Your task to perform on an android device: turn on the 24-hour format for clock Image 0: 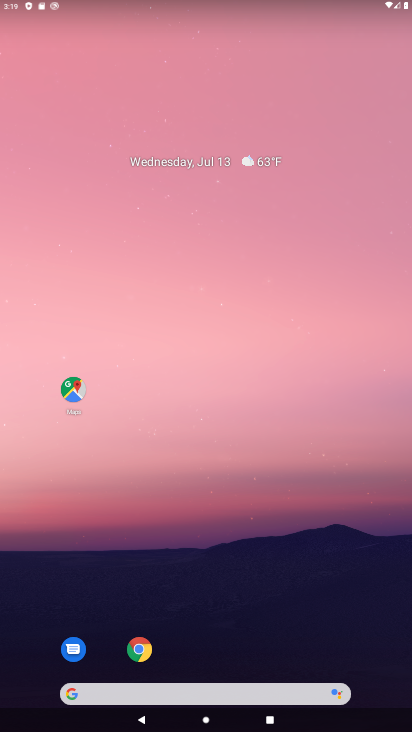
Step 0: click (268, 165)
Your task to perform on an android device: turn on the 24-hour format for clock Image 1: 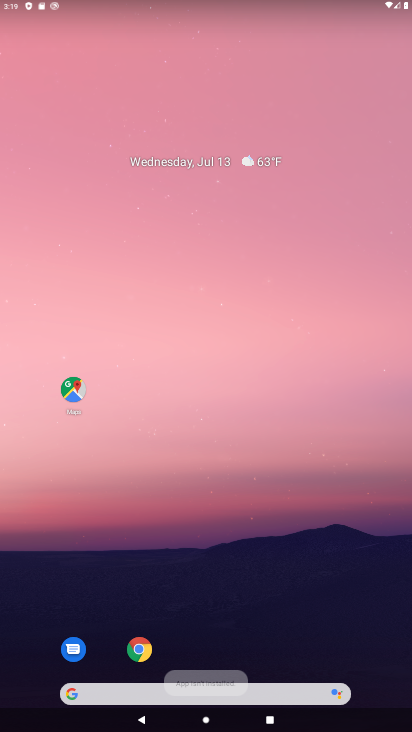
Step 1: drag from (327, 544) to (388, 0)
Your task to perform on an android device: turn on the 24-hour format for clock Image 2: 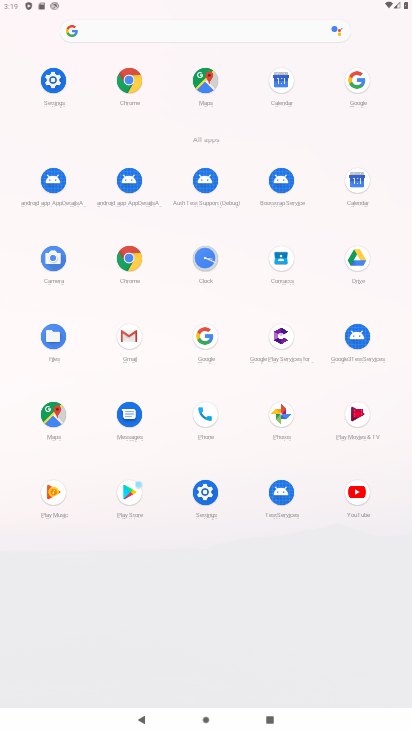
Step 2: click (210, 265)
Your task to perform on an android device: turn on the 24-hour format for clock Image 3: 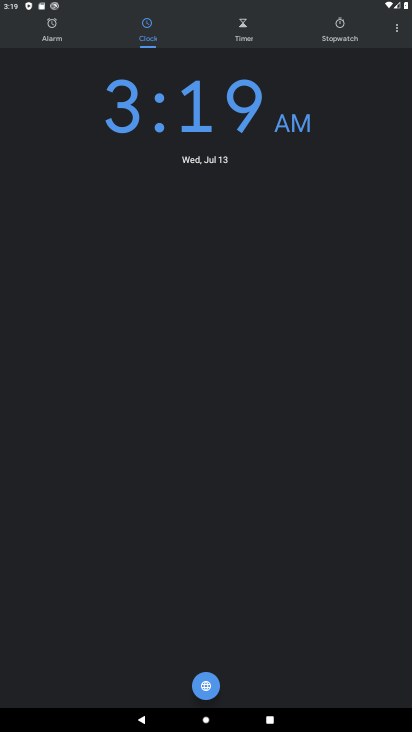
Step 3: click (392, 25)
Your task to perform on an android device: turn on the 24-hour format for clock Image 4: 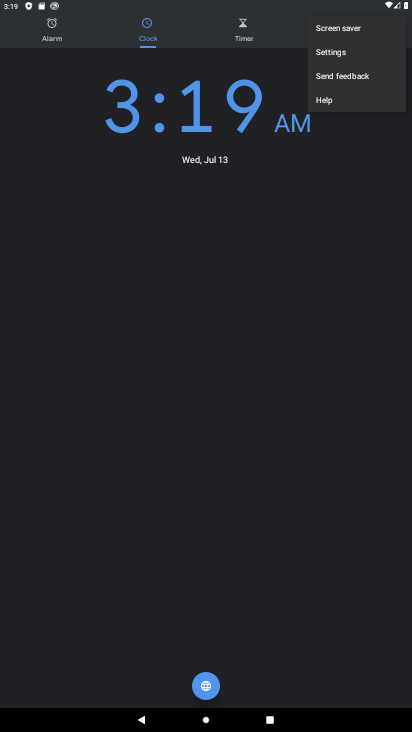
Step 4: click (352, 52)
Your task to perform on an android device: turn on the 24-hour format for clock Image 5: 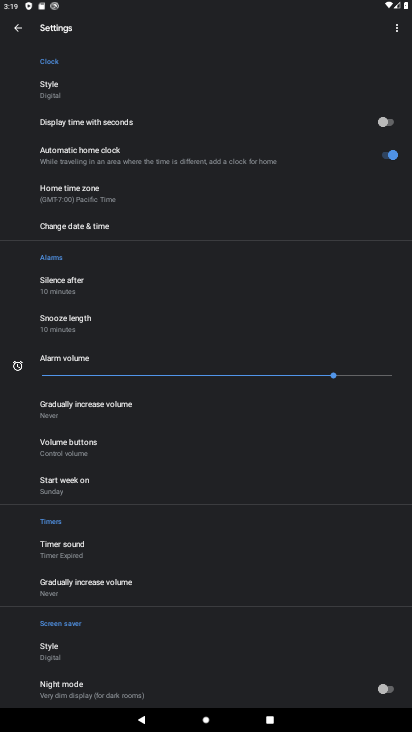
Step 5: click (187, 223)
Your task to perform on an android device: turn on the 24-hour format for clock Image 6: 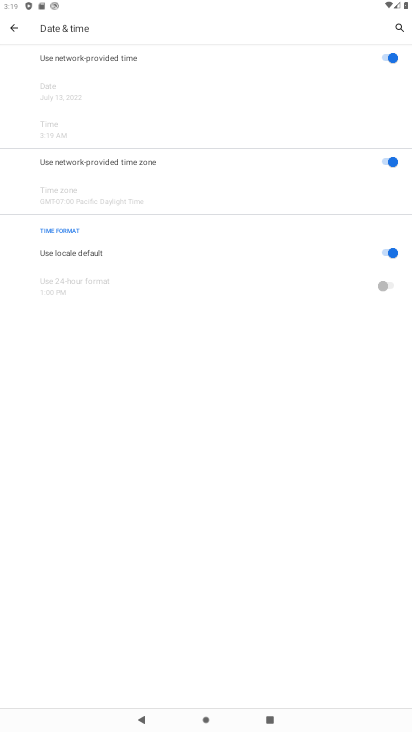
Step 6: click (394, 255)
Your task to perform on an android device: turn on the 24-hour format for clock Image 7: 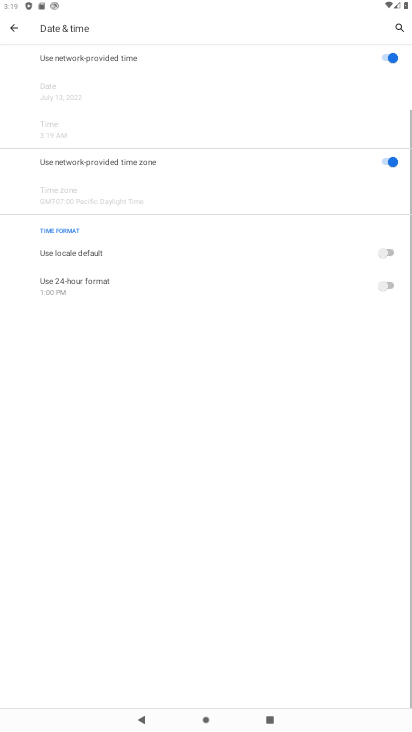
Step 7: click (393, 275)
Your task to perform on an android device: turn on the 24-hour format for clock Image 8: 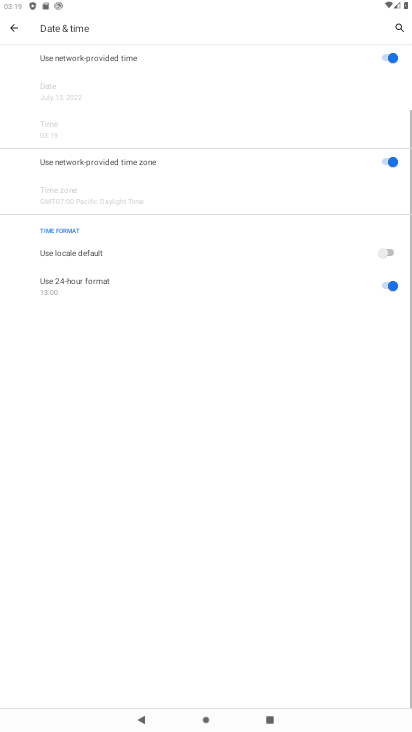
Step 8: task complete